Your task to perform on an android device: open a bookmark in the chrome app Image 0: 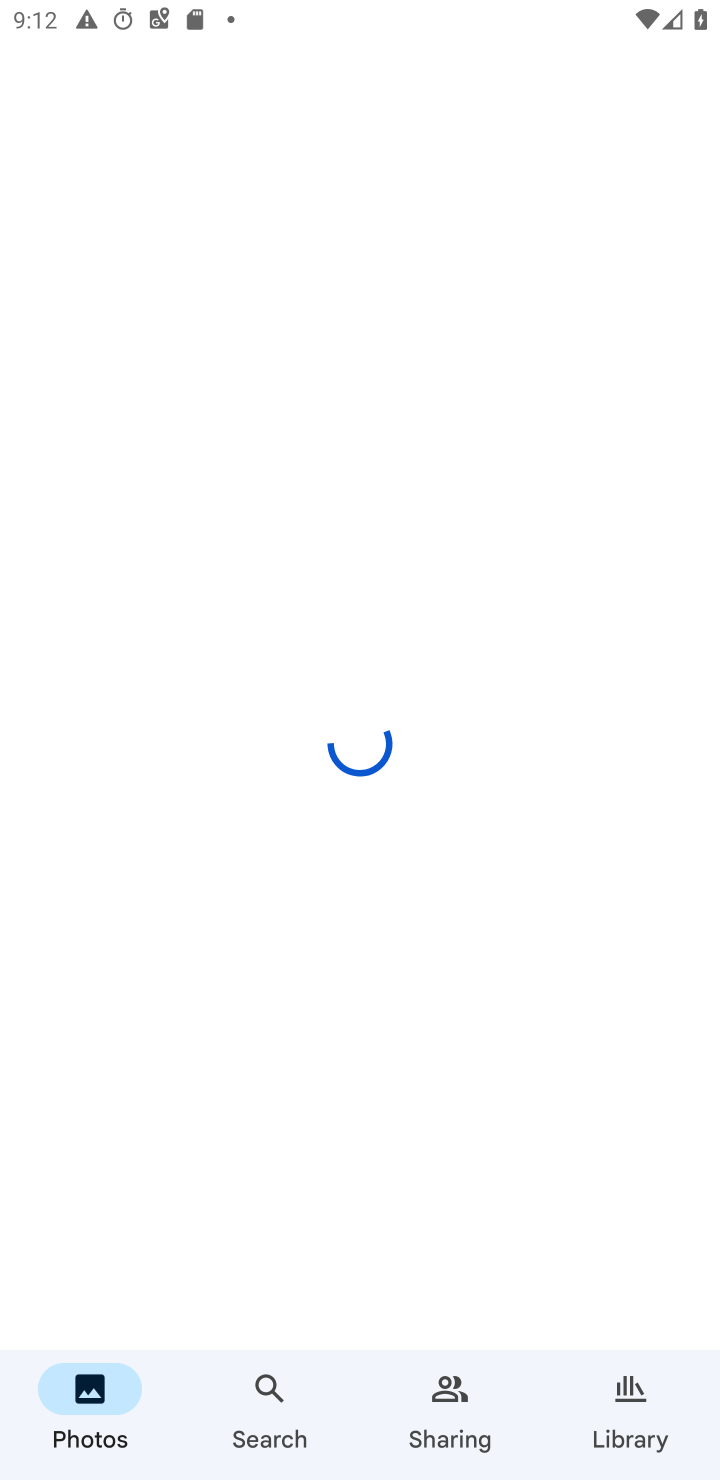
Step 0: press home button
Your task to perform on an android device: open a bookmark in the chrome app Image 1: 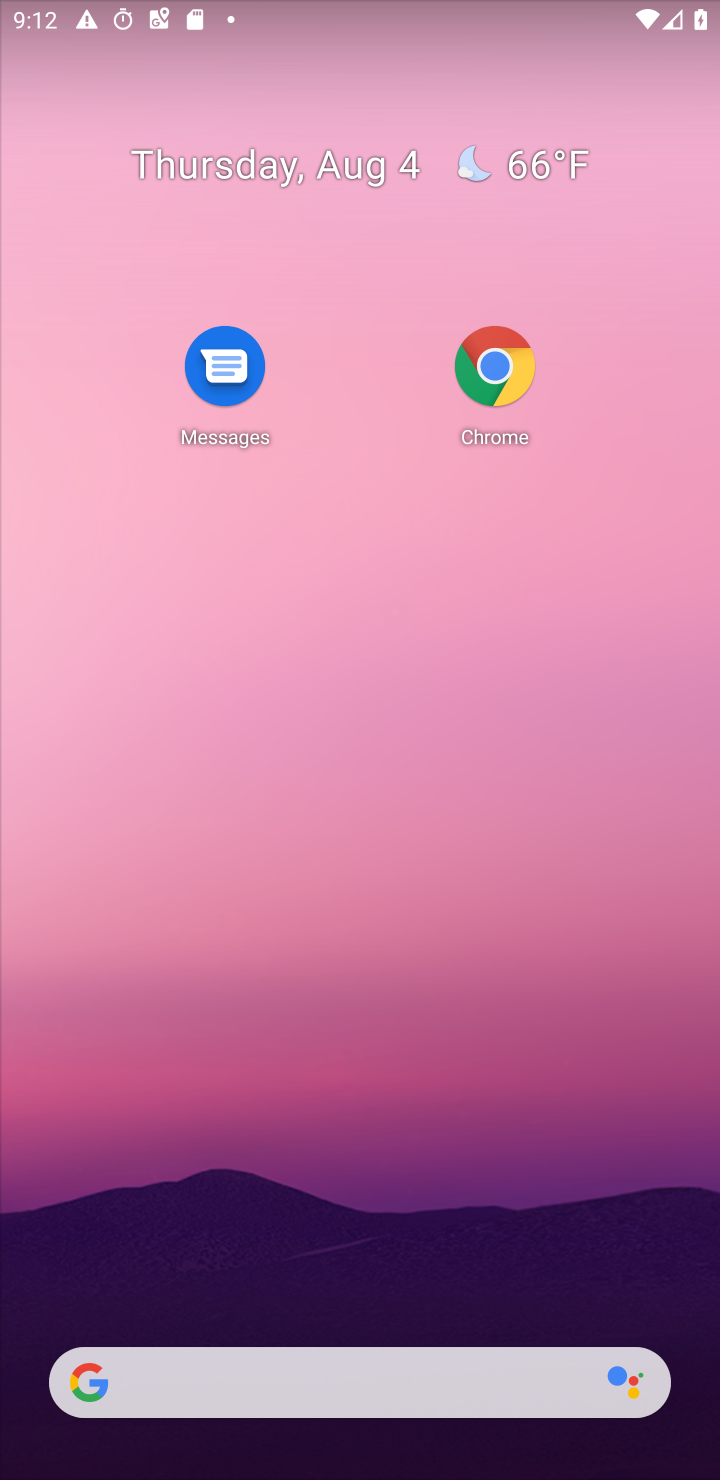
Step 1: drag from (421, 1309) to (281, 506)
Your task to perform on an android device: open a bookmark in the chrome app Image 2: 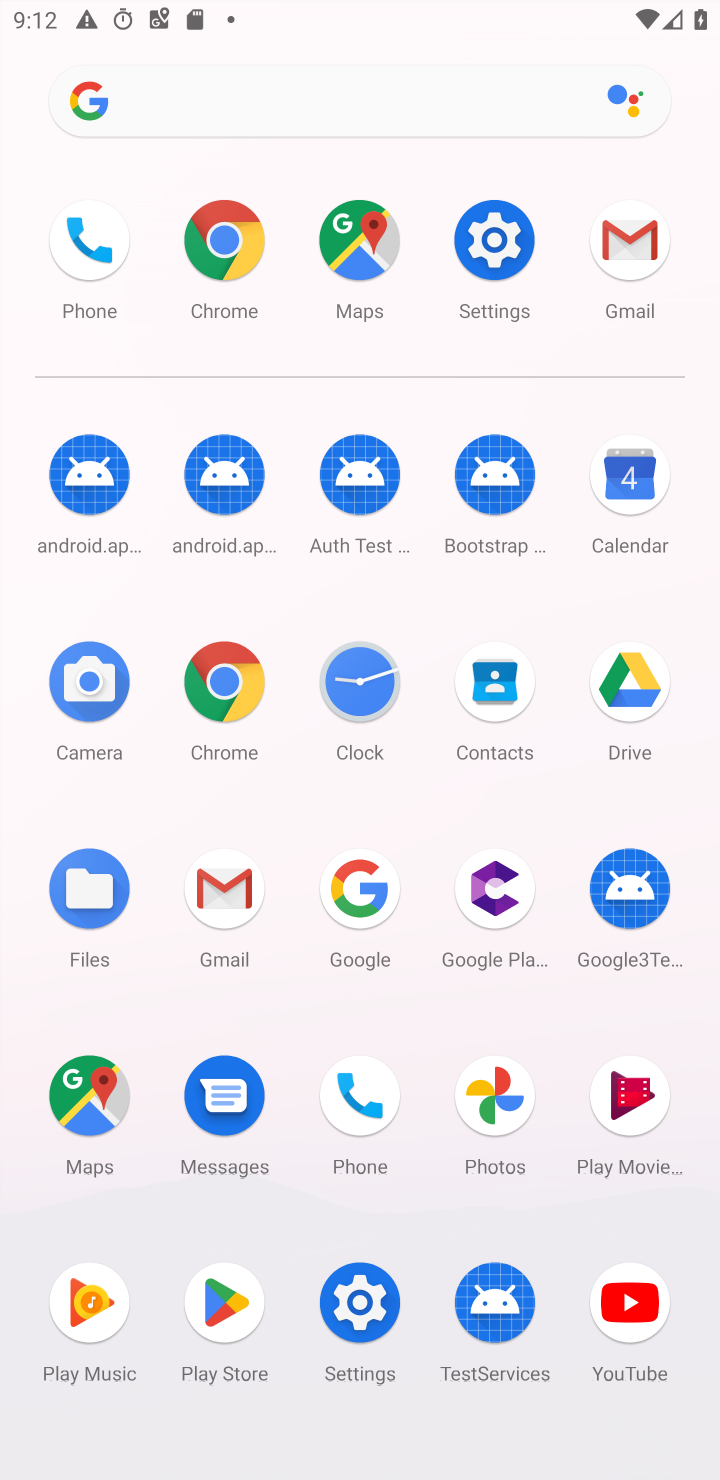
Step 2: click (261, 269)
Your task to perform on an android device: open a bookmark in the chrome app Image 3: 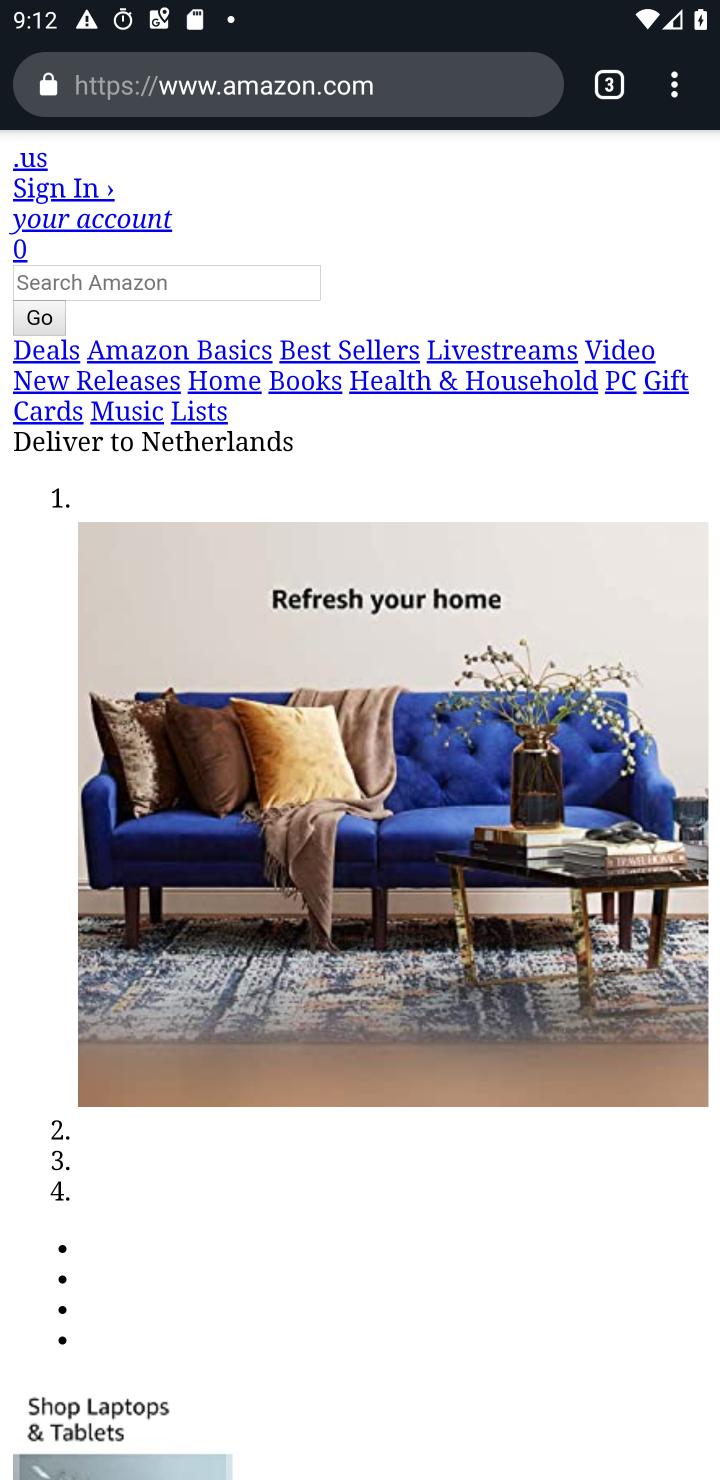
Step 3: click (666, 107)
Your task to perform on an android device: open a bookmark in the chrome app Image 4: 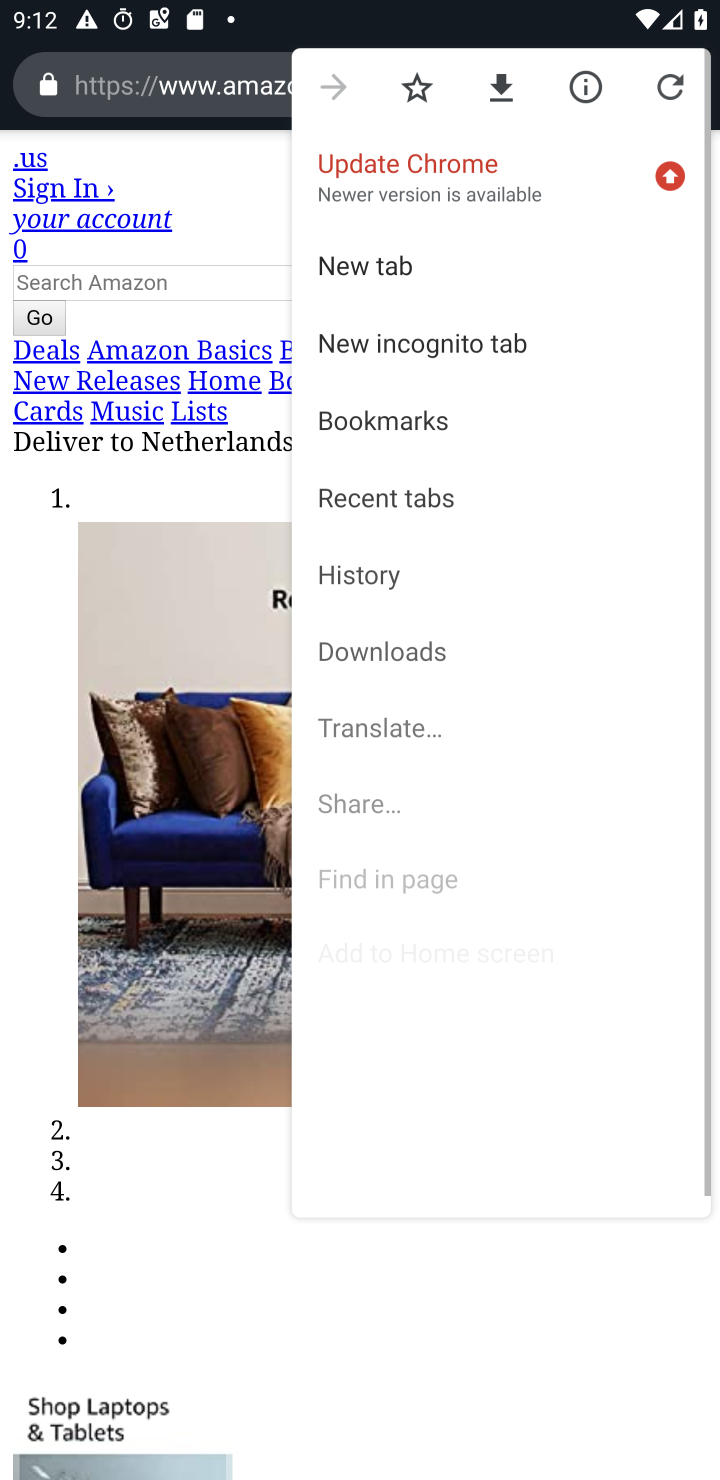
Step 4: click (686, 99)
Your task to perform on an android device: open a bookmark in the chrome app Image 5: 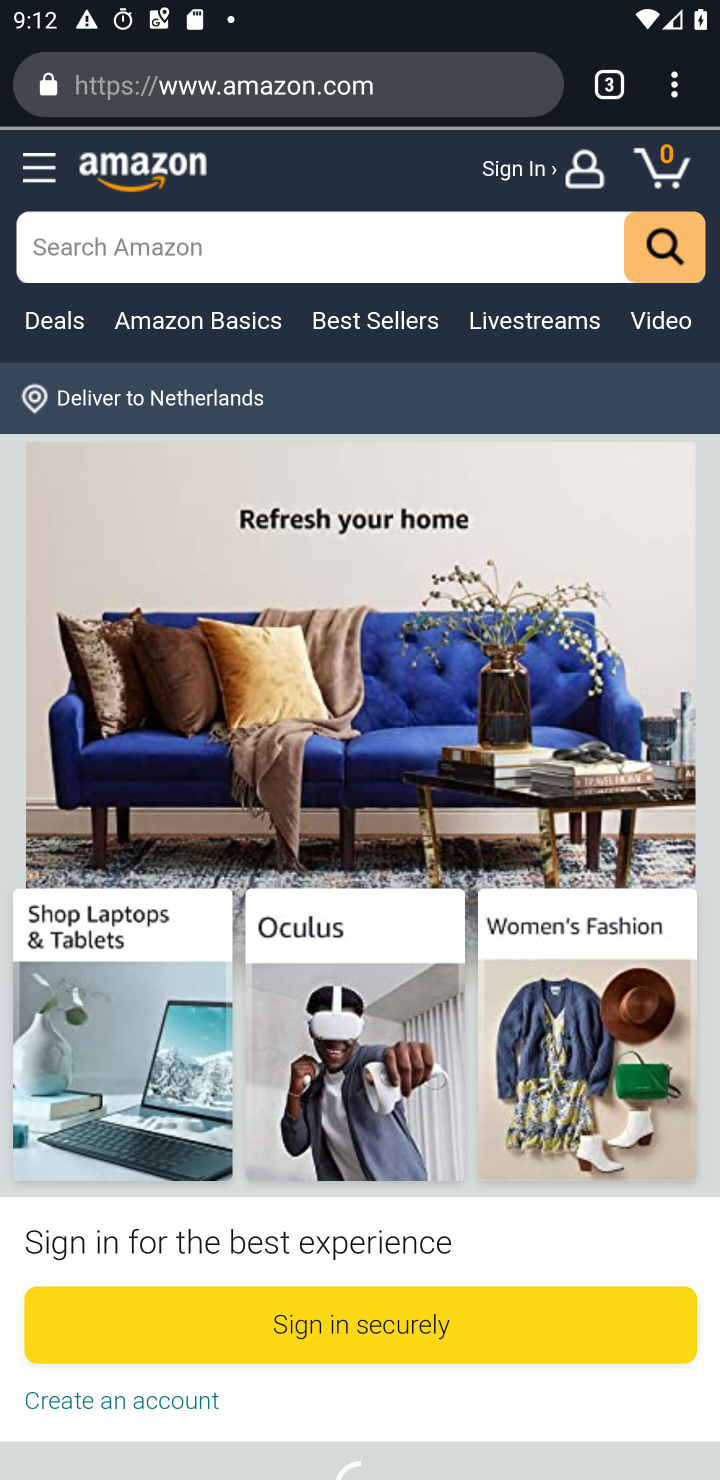
Step 5: click (667, 79)
Your task to perform on an android device: open a bookmark in the chrome app Image 6: 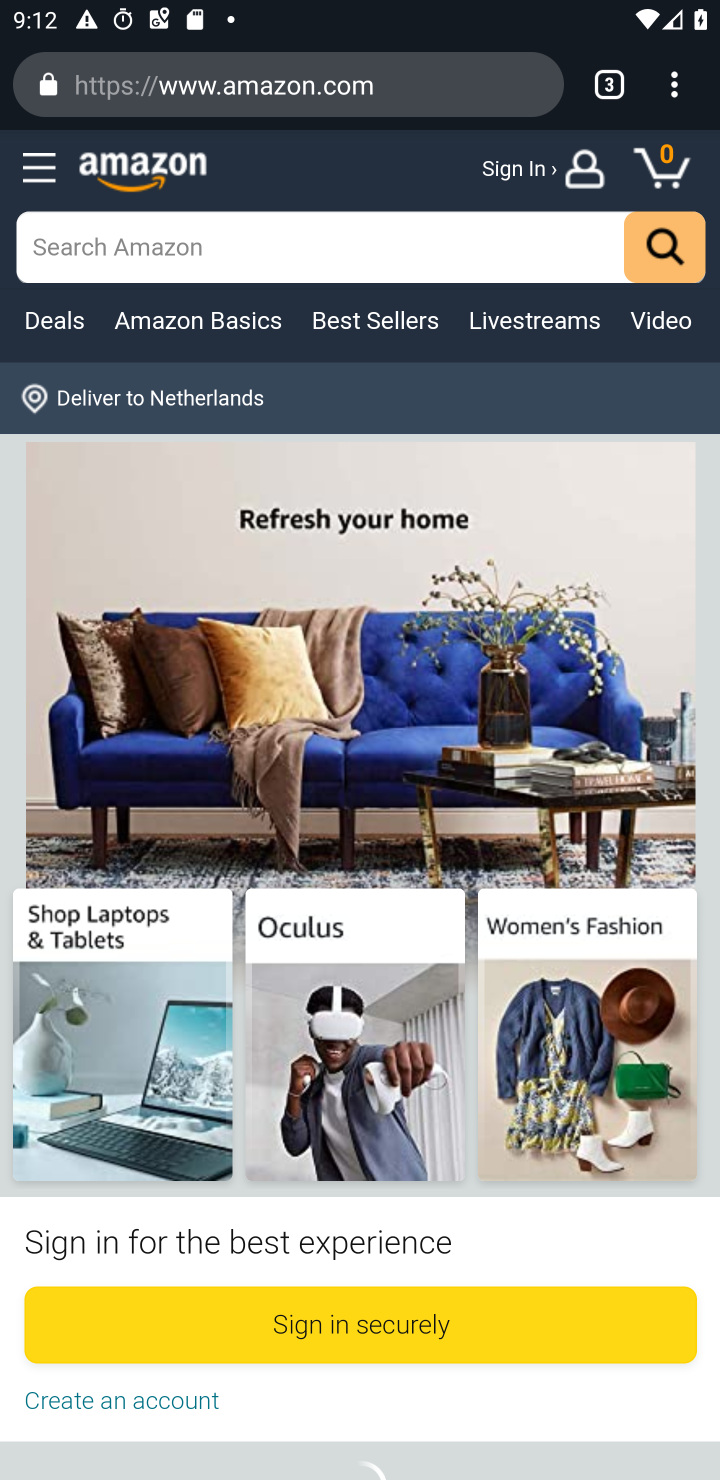
Step 6: click (686, 90)
Your task to perform on an android device: open a bookmark in the chrome app Image 7: 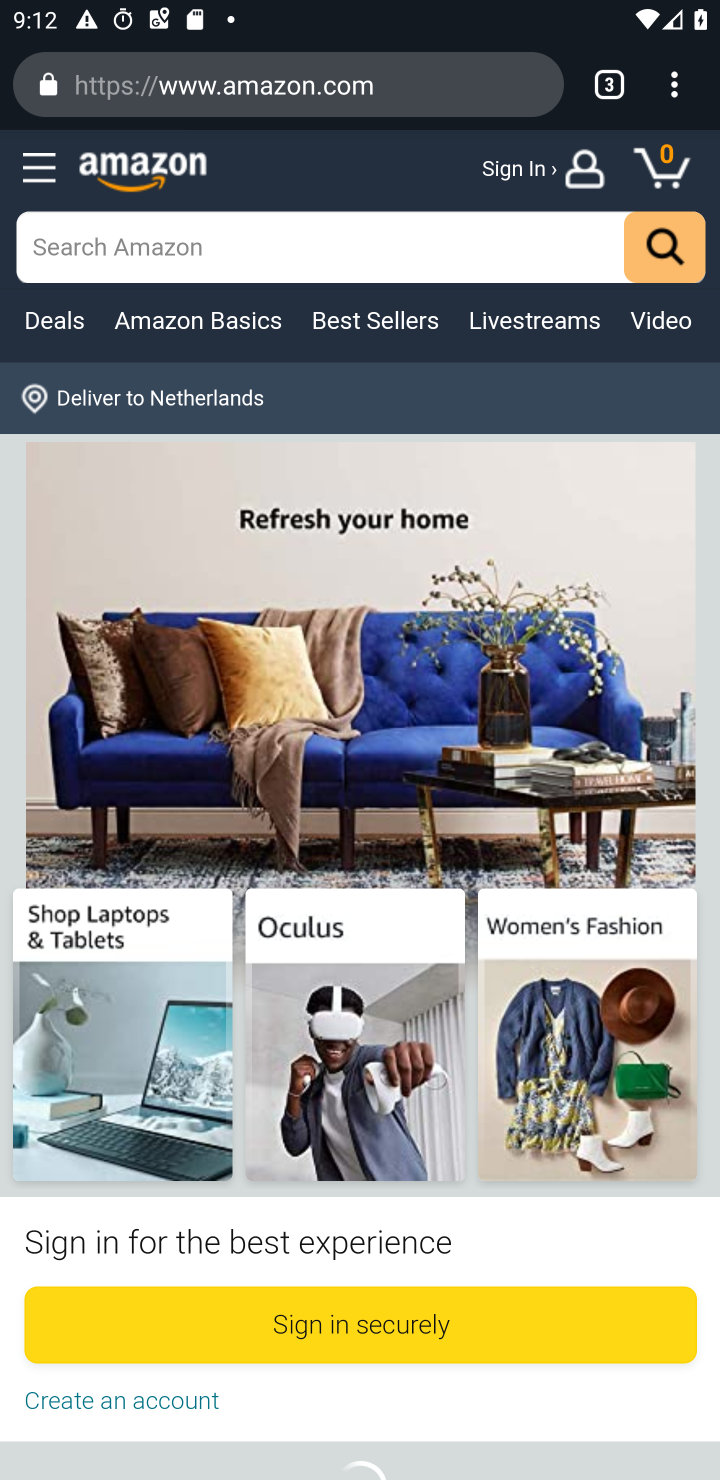
Step 7: click (673, 95)
Your task to perform on an android device: open a bookmark in the chrome app Image 8: 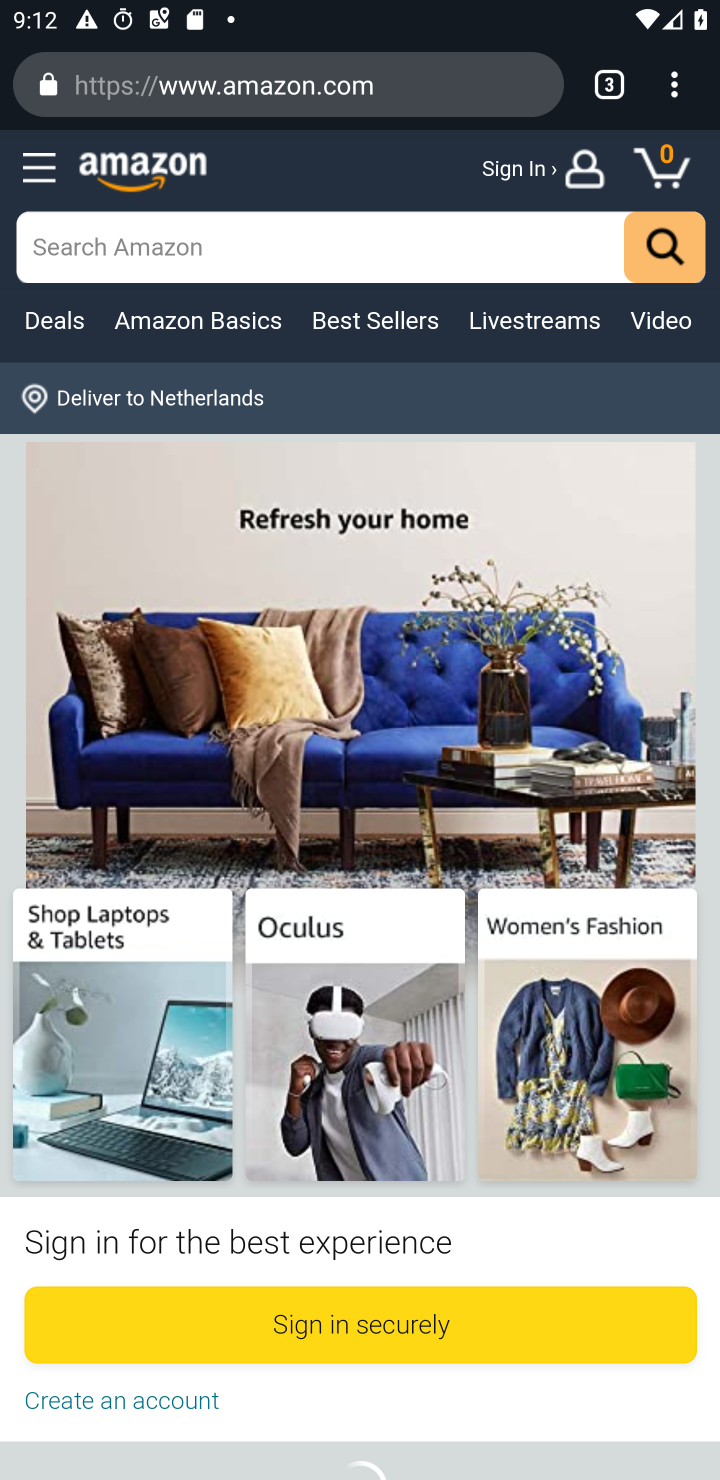
Step 8: click (657, 92)
Your task to perform on an android device: open a bookmark in the chrome app Image 9: 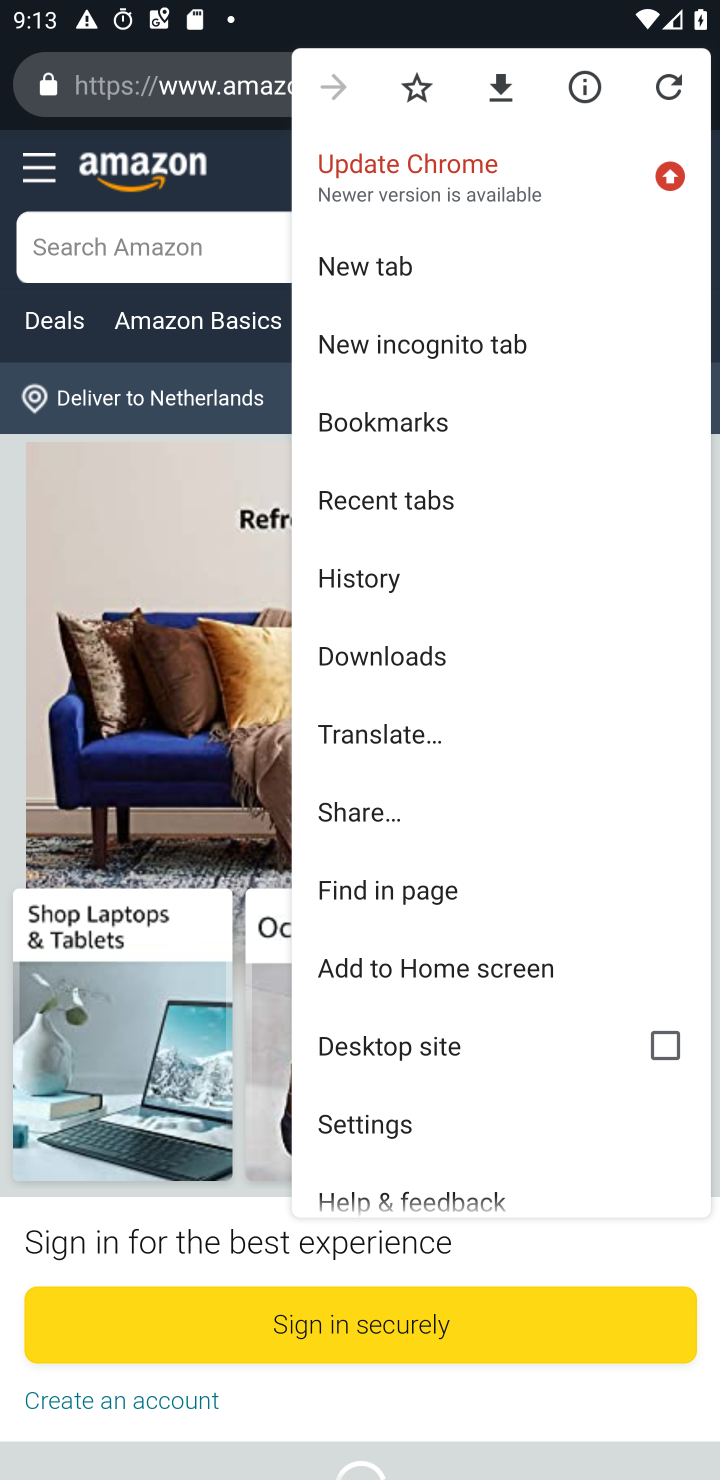
Step 9: click (386, 418)
Your task to perform on an android device: open a bookmark in the chrome app Image 10: 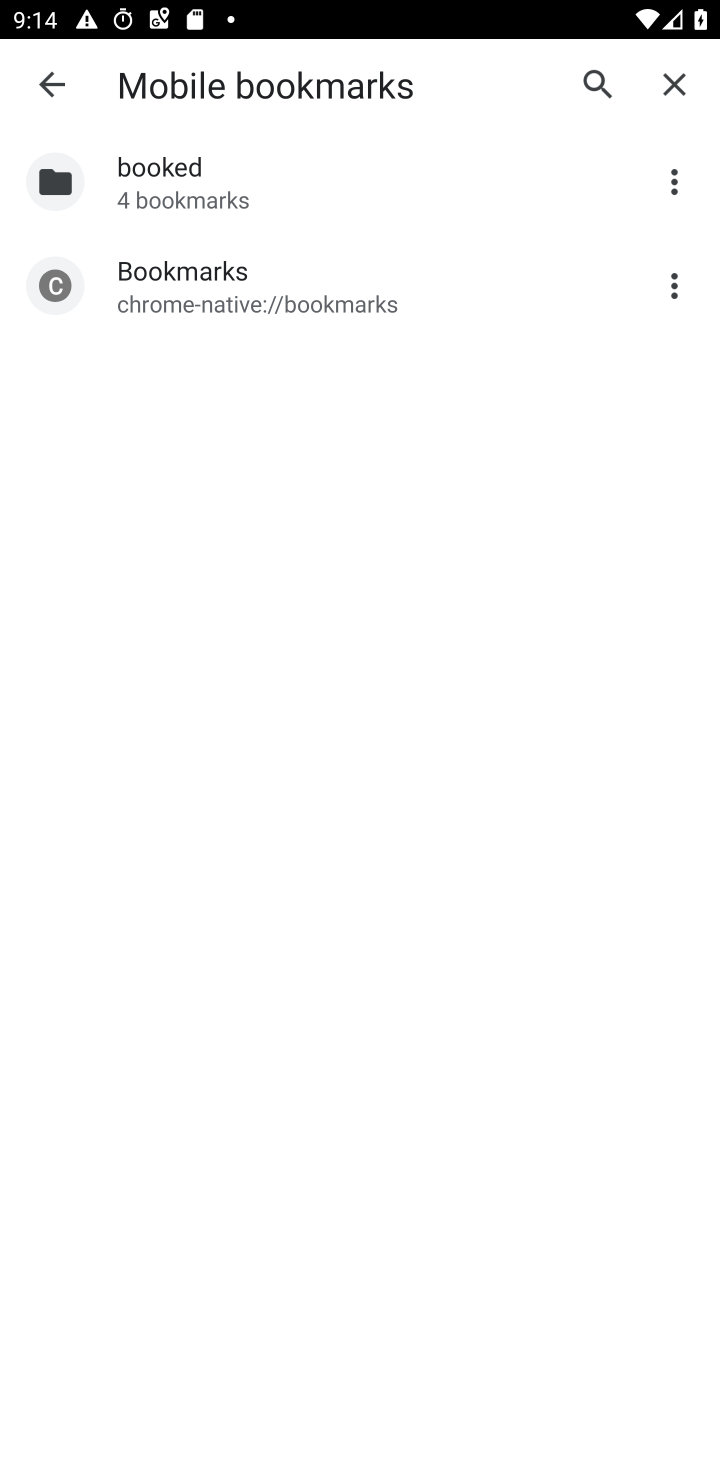
Step 10: task complete